Your task to perform on an android device: set the stopwatch Image 0: 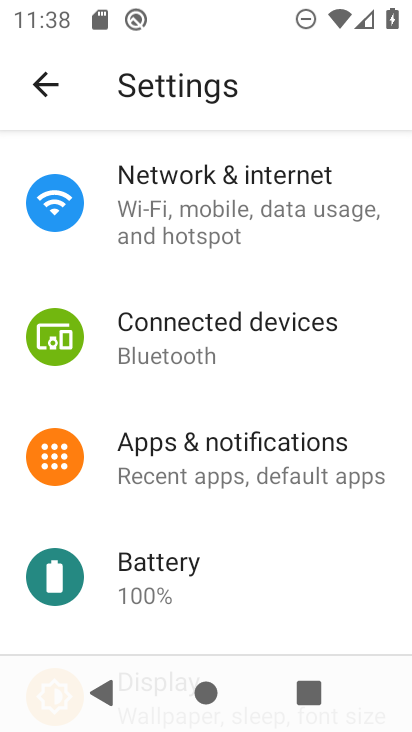
Step 0: press home button
Your task to perform on an android device: set the stopwatch Image 1: 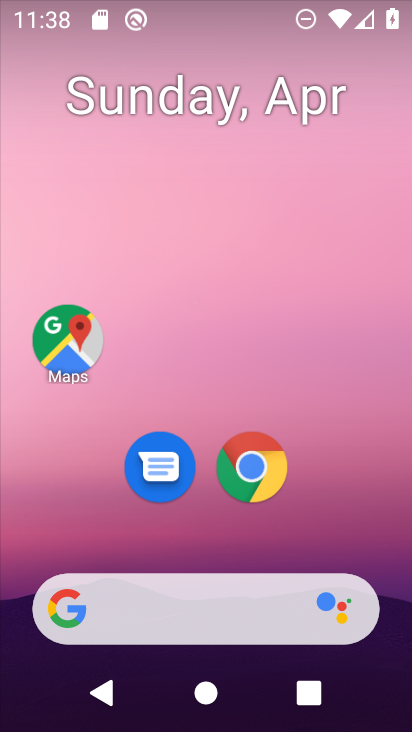
Step 1: drag from (366, 511) to (373, 151)
Your task to perform on an android device: set the stopwatch Image 2: 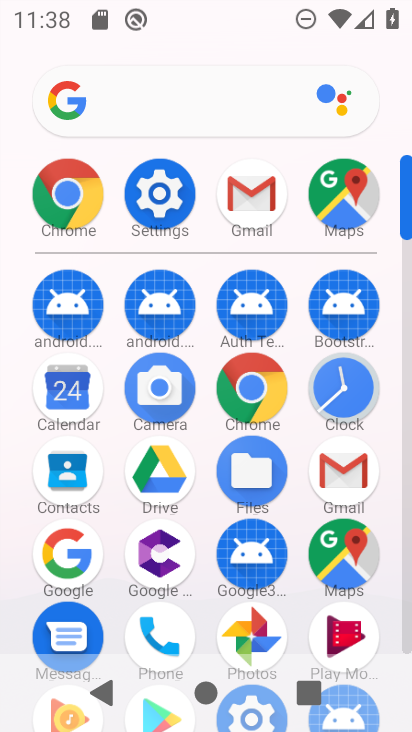
Step 2: click (352, 389)
Your task to perform on an android device: set the stopwatch Image 3: 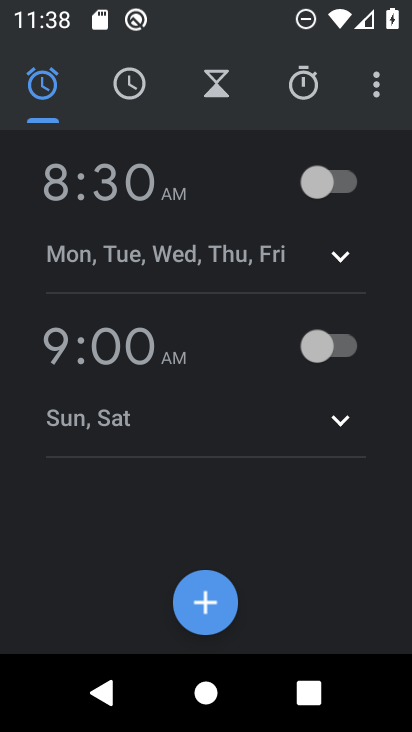
Step 3: click (315, 85)
Your task to perform on an android device: set the stopwatch Image 4: 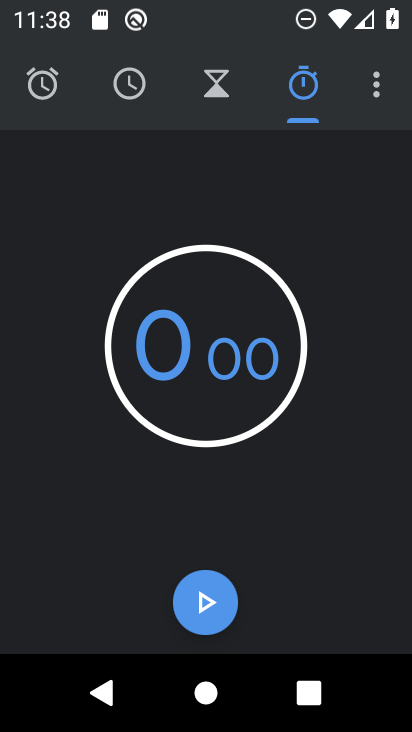
Step 4: click (216, 629)
Your task to perform on an android device: set the stopwatch Image 5: 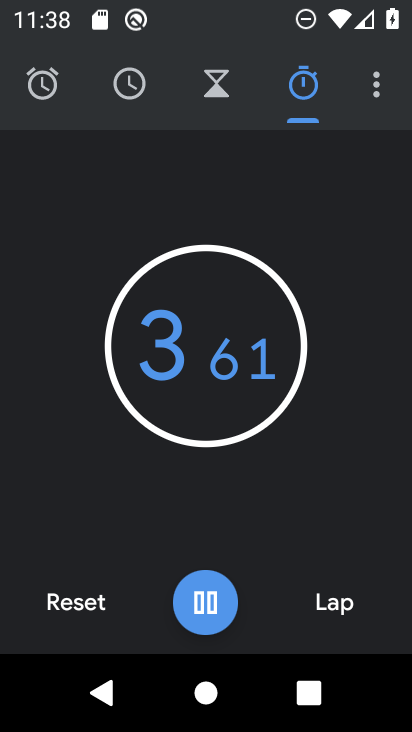
Step 5: task complete